Your task to perform on an android device: Open Maps and search for coffee Image 0: 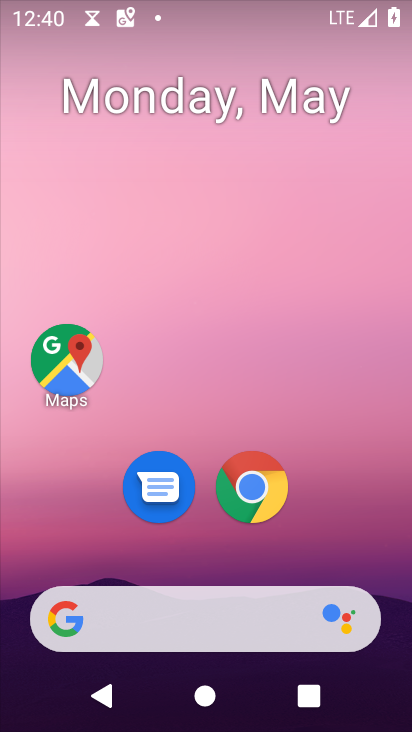
Step 0: click (56, 361)
Your task to perform on an android device: Open Maps and search for coffee Image 1: 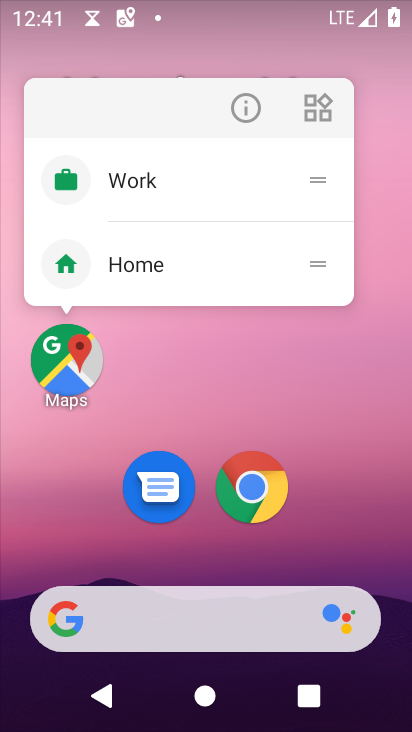
Step 1: click (78, 351)
Your task to perform on an android device: Open Maps and search for coffee Image 2: 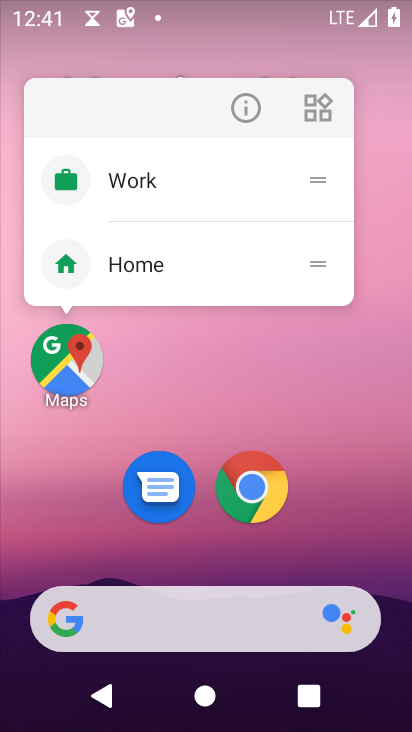
Step 2: click (68, 356)
Your task to perform on an android device: Open Maps and search for coffee Image 3: 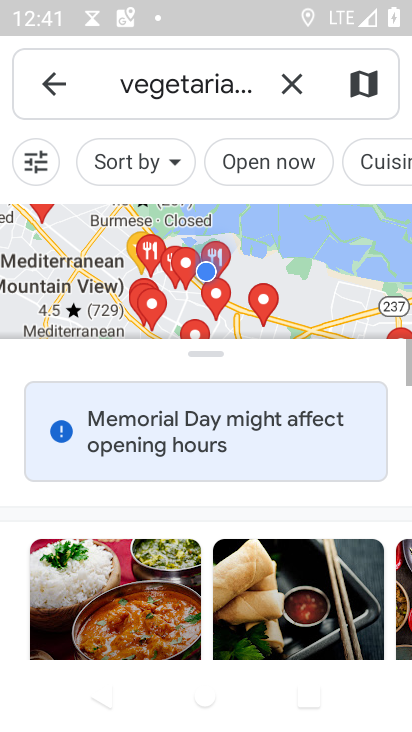
Step 3: click (300, 93)
Your task to perform on an android device: Open Maps and search for coffee Image 4: 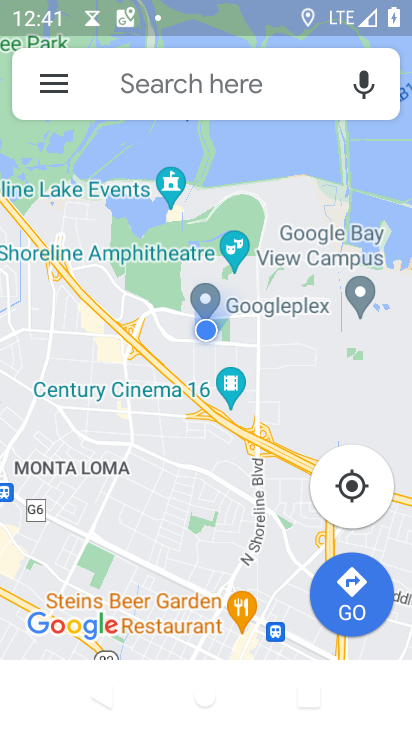
Step 4: click (171, 85)
Your task to perform on an android device: Open Maps and search for coffee Image 5: 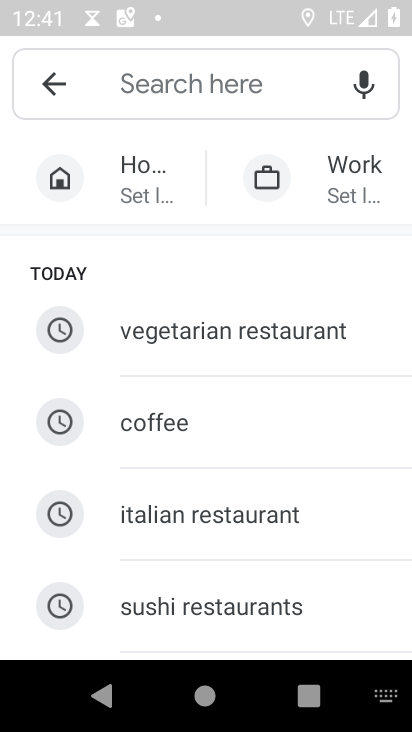
Step 5: type "coffee"
Your task to perform on an android device: Open Maps and search for coffee Image 6: 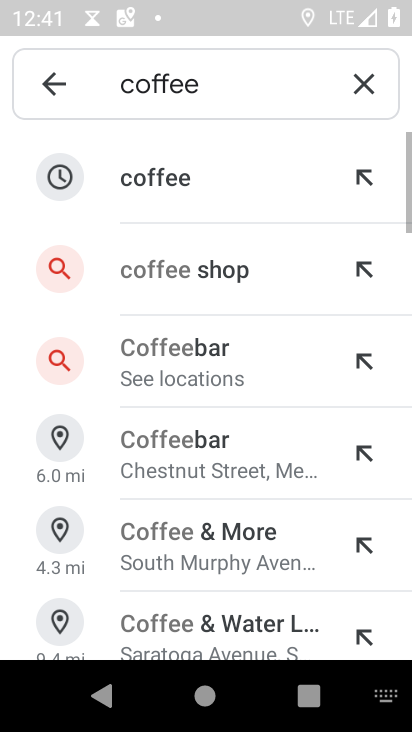
Step 6: click (168, 176)
Your task to perform on an android device: Open Maps and search for coffee Image 7: 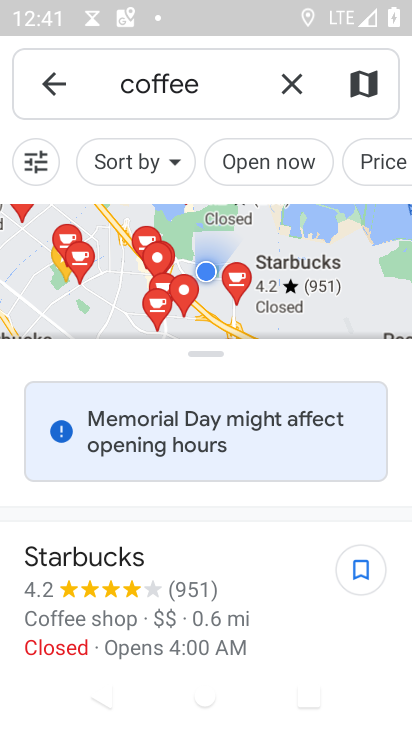
Step 7: task complete